Your task to perform on an android device: toggle wifi Image 0: 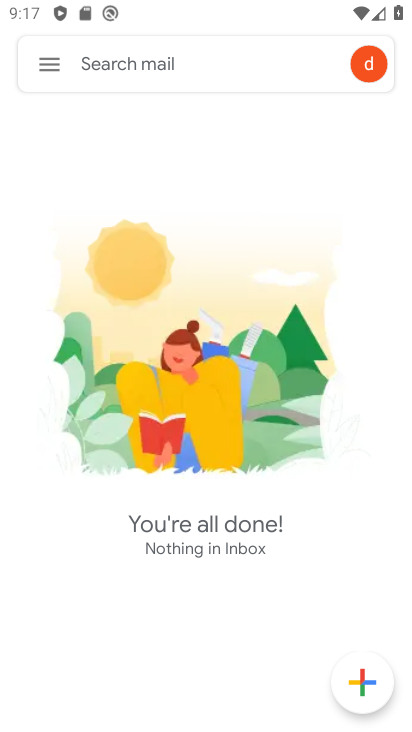
Step 0: press home button
Your task to perform on an android device: toggle wifi Image 1: 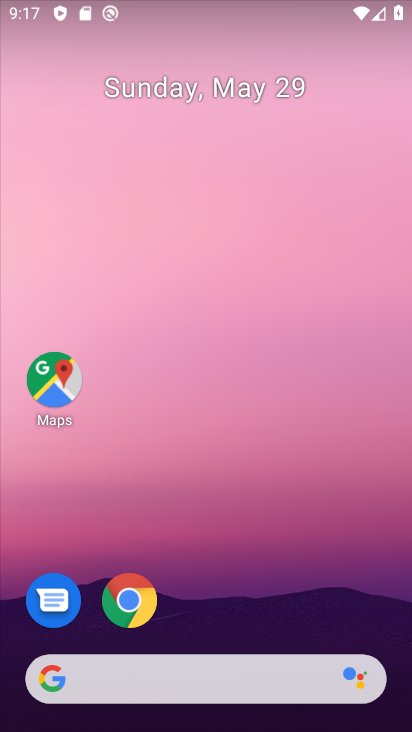
Step 1: drag from (111, 2) to (88, 517)
Your task to perform on an android device: toggle wifi Image 2: 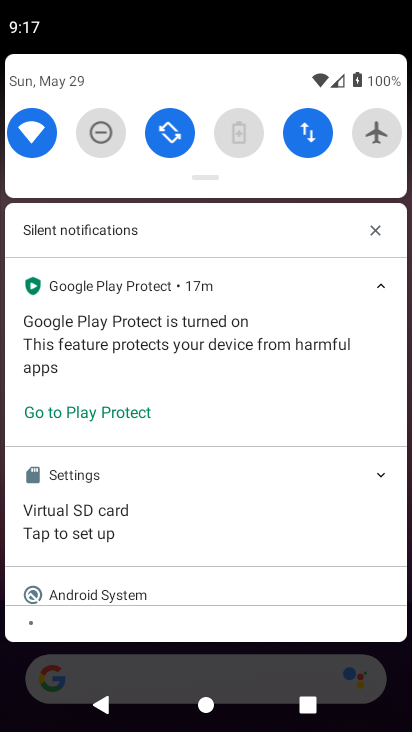
Step 2: click (23, 124)
Your task to perform on an android device: toggle wifi Image 3: 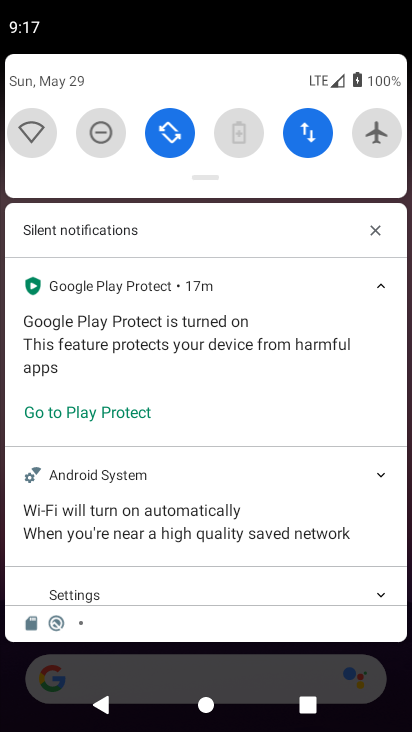
Step 3: task complete